Your task to perform on an android device: Go to ESPN.com Image 0: 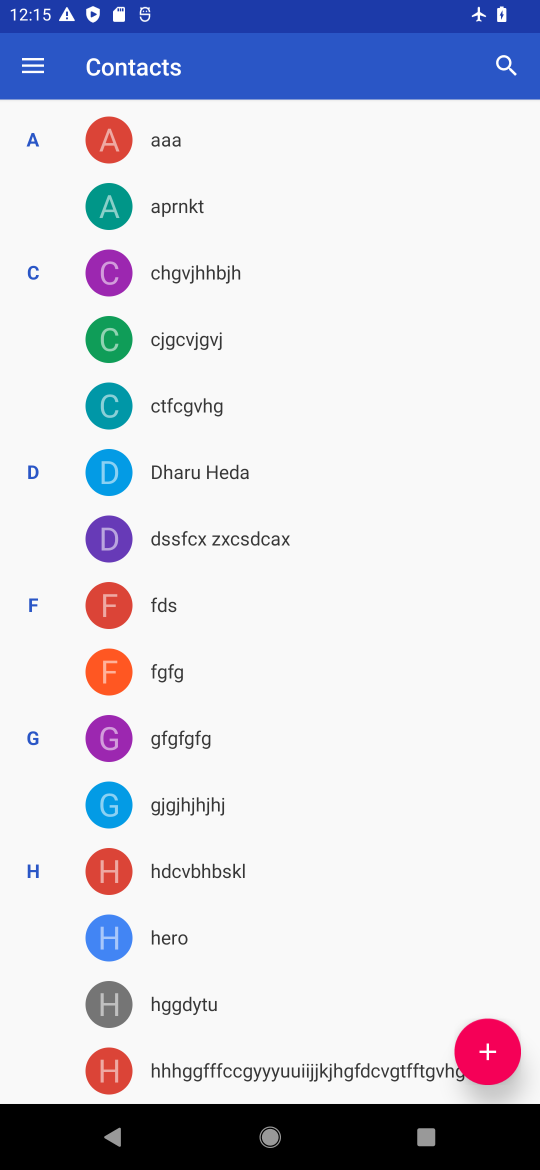
Step 0: press home button
Your task to perform on an android device: Go to ESPN.com Image 1: 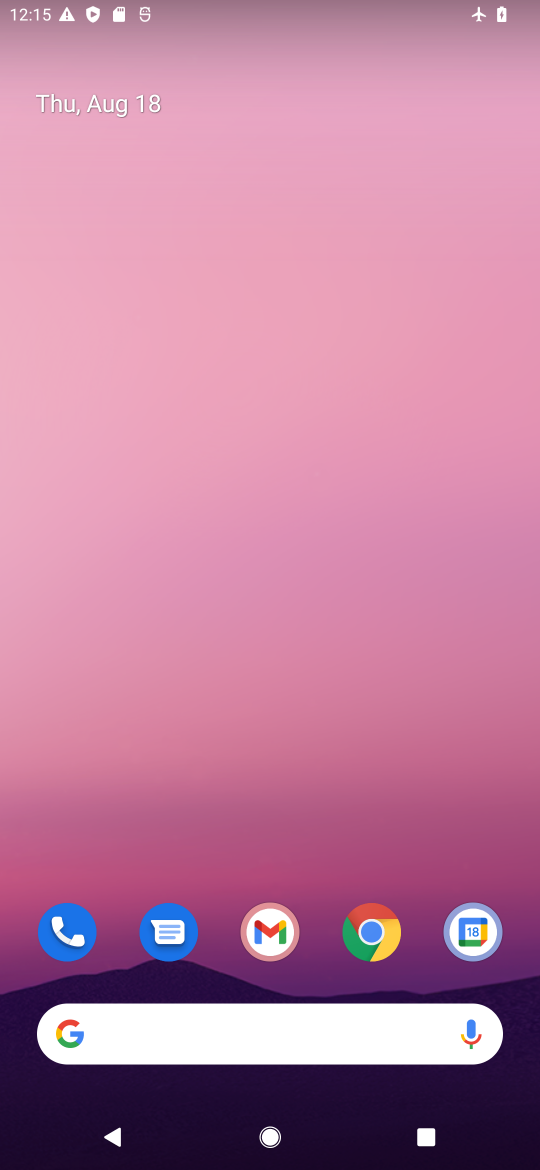
Step 1: click (374, 944)
Your task to perform on an android device: Go to ESPN.com Image 2: 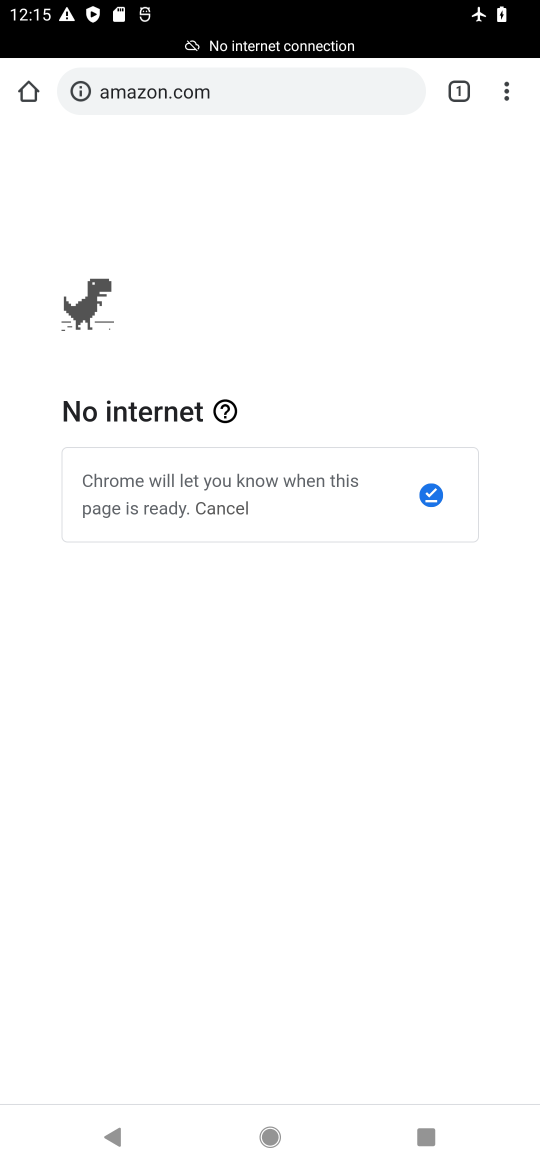
Step 2: click (506, 88)
Your task to perform on an android device: Go to ESPN.com Image 3: 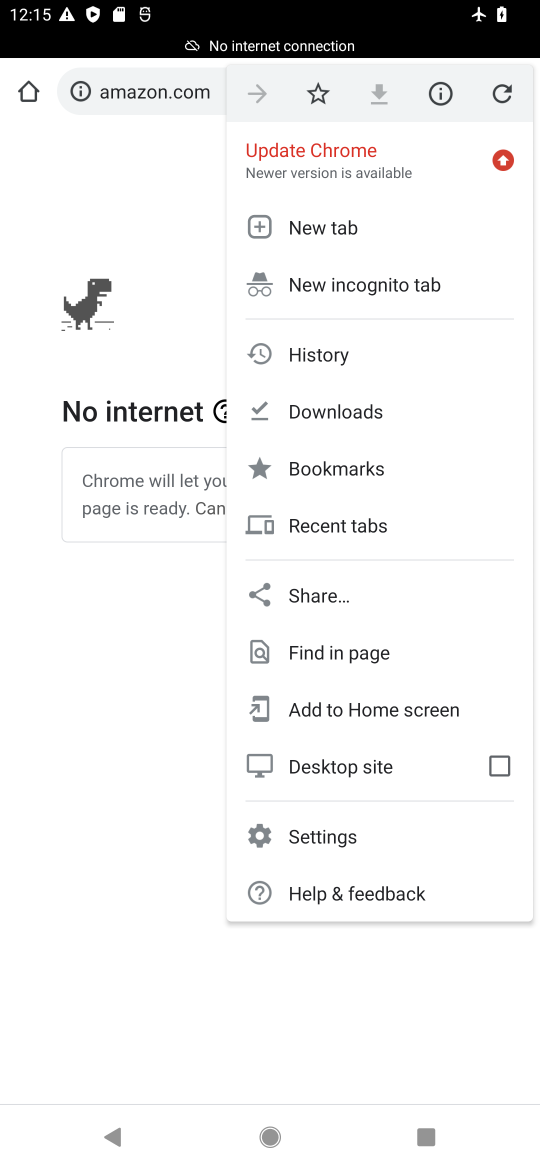
Step 3: click (348, 216)
Your task to perform on an android device: Go to ESPN.com Image 4: 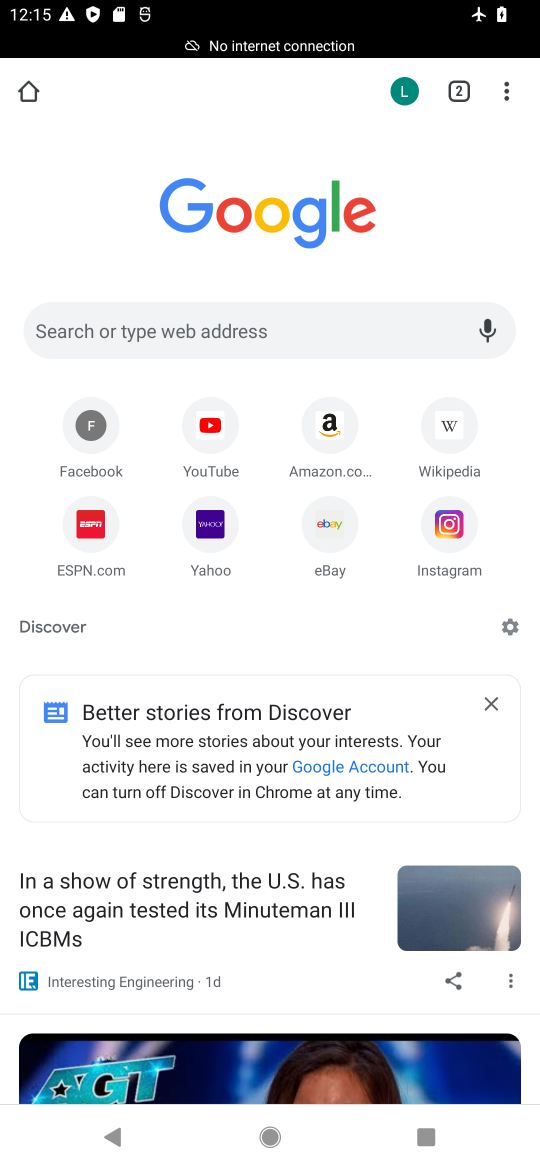
Step 4: click (92, 522)
Your task to perform on an android device: Go to ESPN.com Image 5: 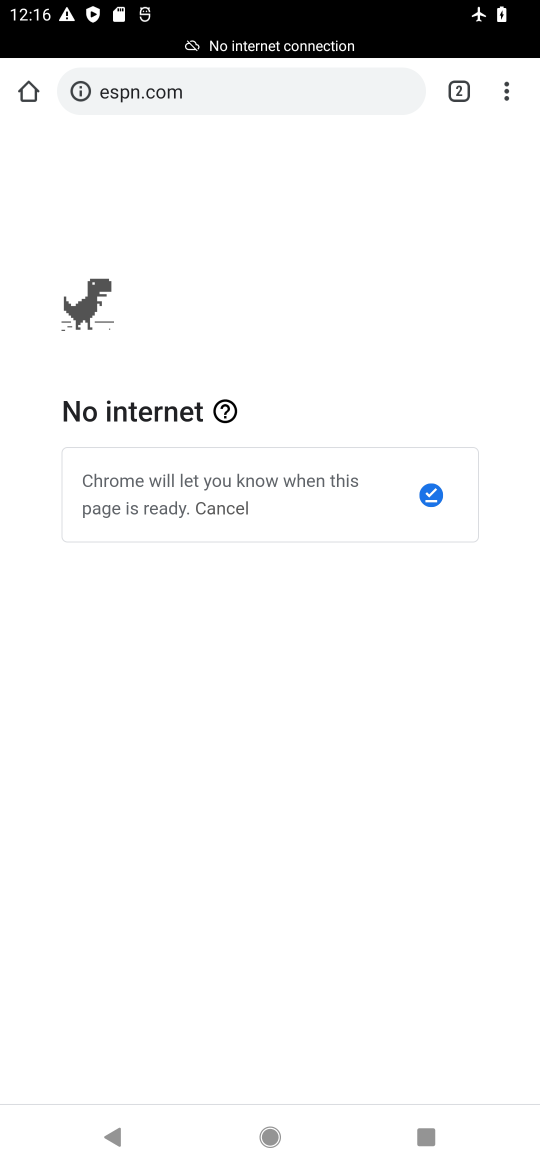
Step 5: task complete